Your task to perform on an android device: Open the phone app and click the voicemail tab. Image 0: 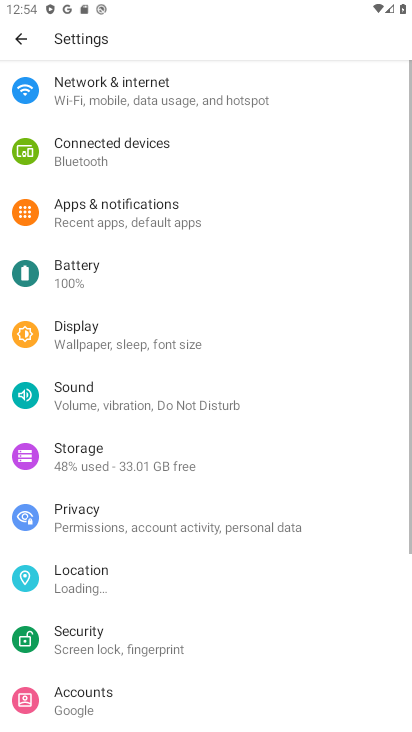
Step 0: press home button
Your task to perform on an android device: Open the phone app and click the voicemail tab. Image 1: 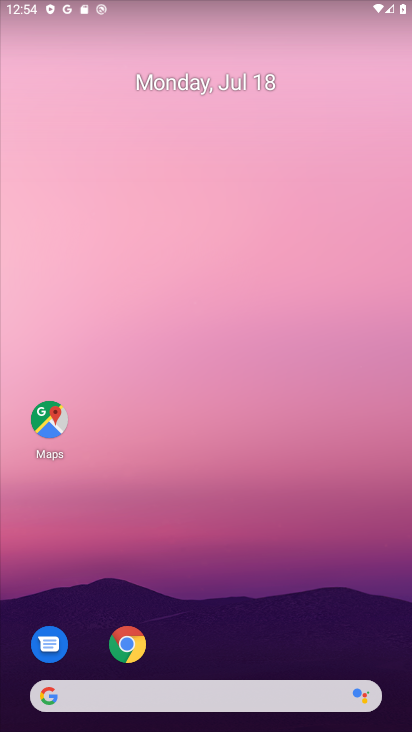
Step 1: drag from (187, 645) to (300, 18)
Your task to perform on an android device: Open the phone app and click the voicemail tab. Image 2: 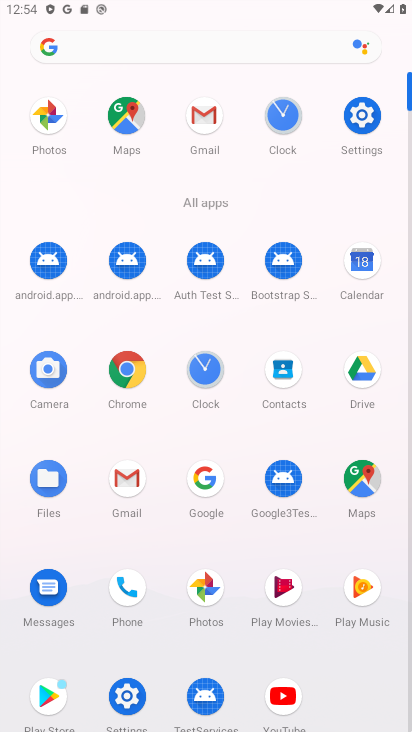
Step 2: click (108, 597)
Your task to perform on an android device: Open the phone app and click the voicemail tab. Image 3: 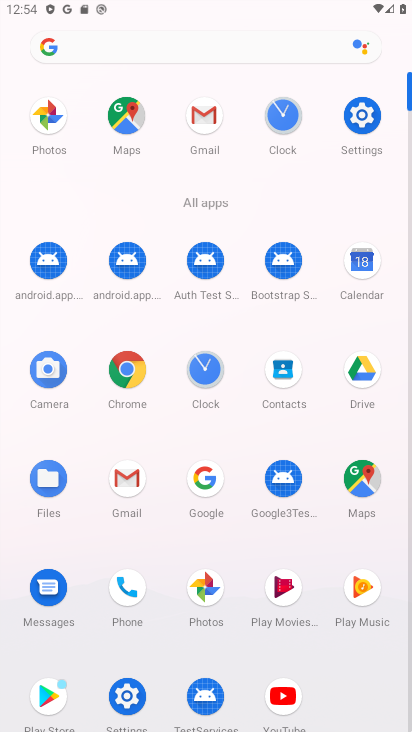
Step 3: click (124, 590)
Your task to perform on an android device: Open the phone app and click the voicemail tab. Image 4: 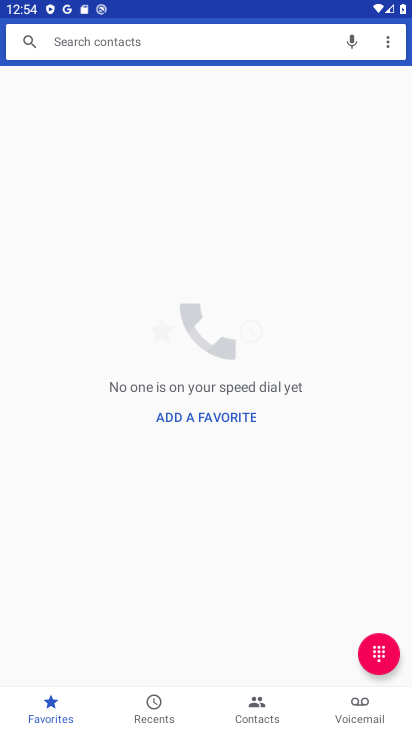
Step 4: click (360, 700)
Your task to perform on an android device: Open the phone app and click the voicemail tab. Image 5: 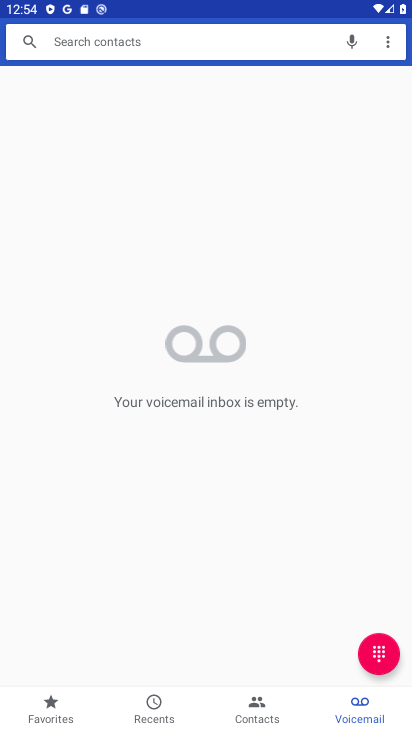
Step 5: task complete